Your task to perform on an android device: Open the Play Movies app and select the watchlist tab. Image 0: 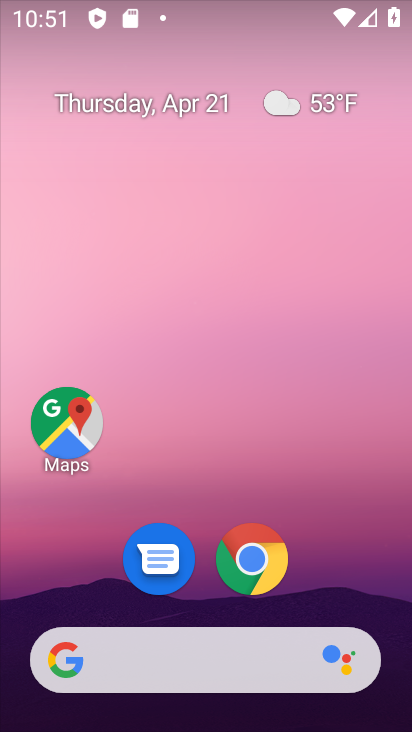
Step 0: drag from (262, 683) to (302, 195)
Your task to perform on an android device: Open the Play Movies app and select the watchlist tab. Image 1: 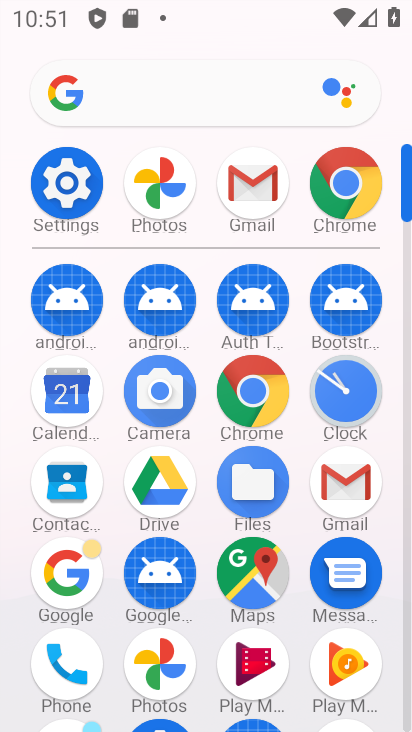
Step 1: click (244, 644)
Your task to perform on an android device: Open the Play Movies app and select the watchlist tab. Image 2: 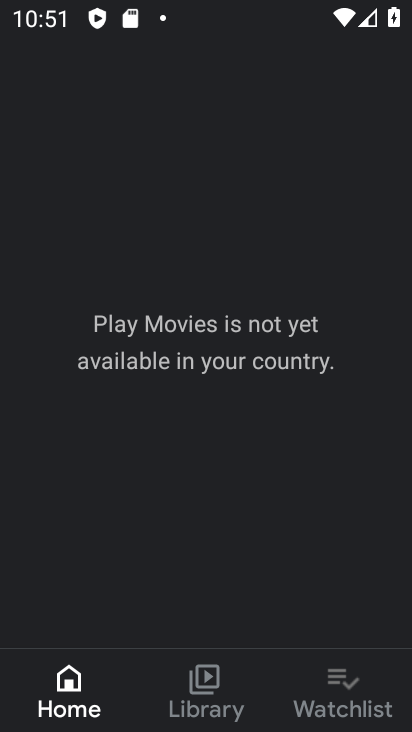
Step 2: click (349, 703)
Your task to perform on an android device: Open the Play Movies app and select the watchlist tab. Image 3: 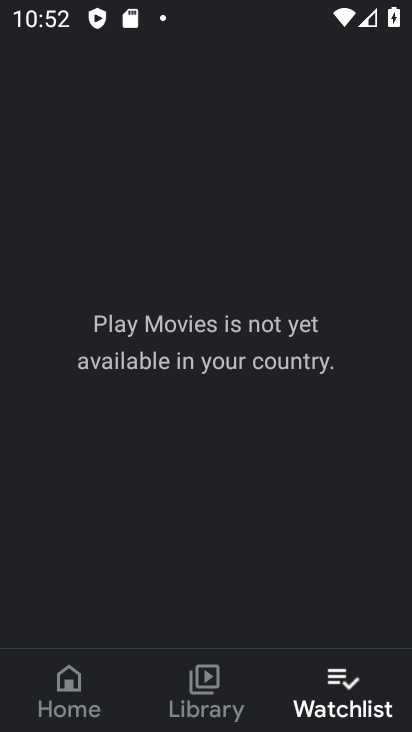
Step 3: task complete